Your task to perform on an android device: What's the weather? Image 0: 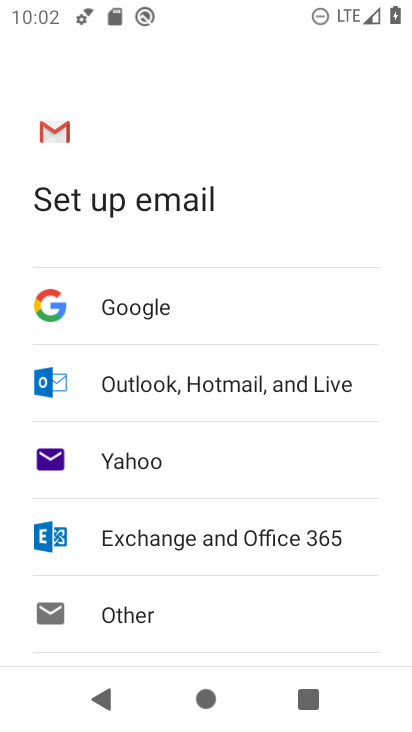
Step 0: press home button
Your task to perform on an android device: What's the weather? Image 1: 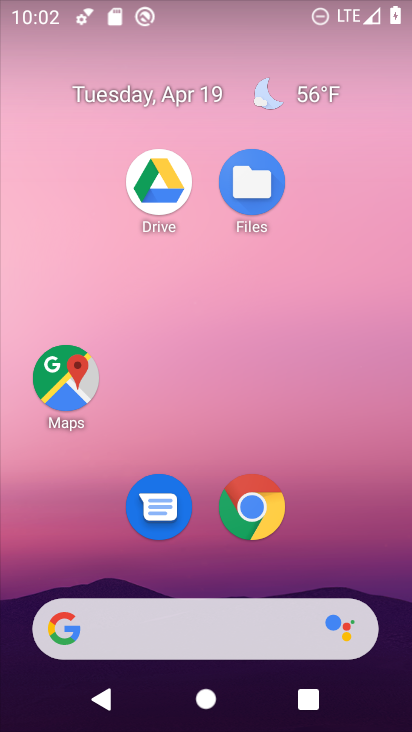
Step 1: click (317, 91)
Your task to perform on an android device: What's the weather? Image 2: 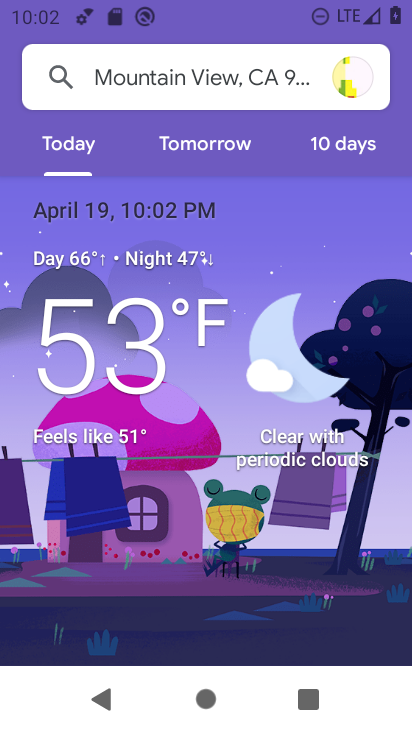
Step 2: task complete